Your task to perform on an android device: allow cookies in the chrome app Image 0: 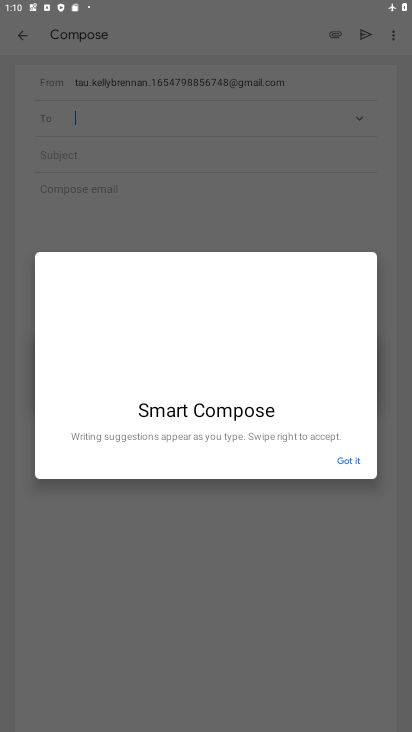
Step 0: press home button
Your task to perform on an android device: allow cookies in the chrome app Image 1: 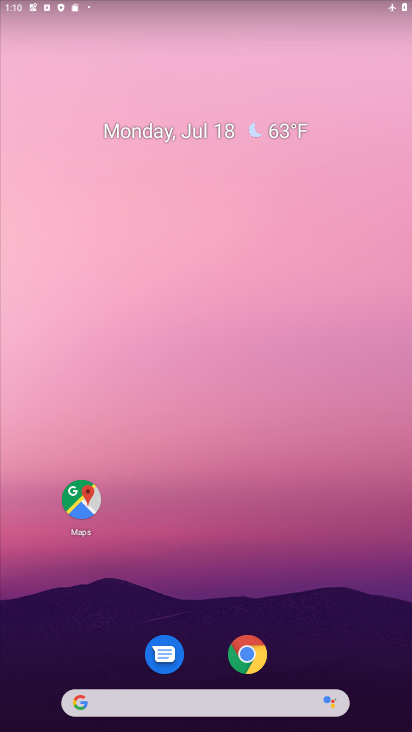
Step 1: click (262, 665)
Your task to perform on an android device: allow cookies in the chrome app Image 2: 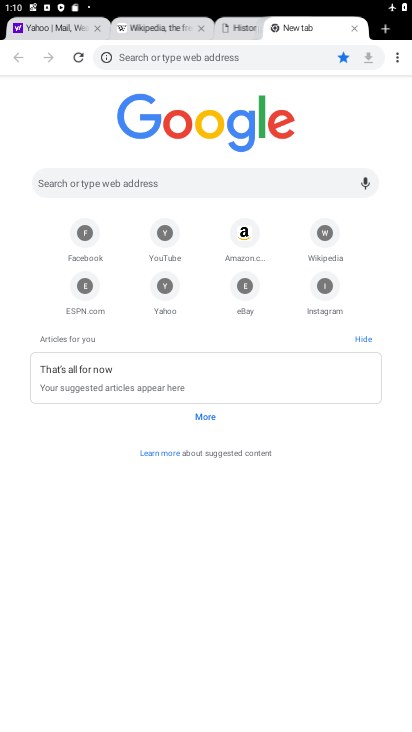
Step 2: click (399, 62)
Your task to perform on an android device: allow cookies in the chrome app Image 3: 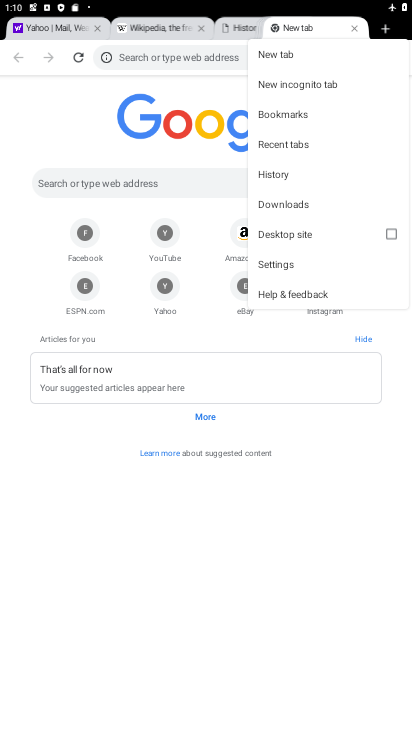
Step 3: click (310, 266)
Your task to perform on an android device: allow cookies in the chrome app Image 4: 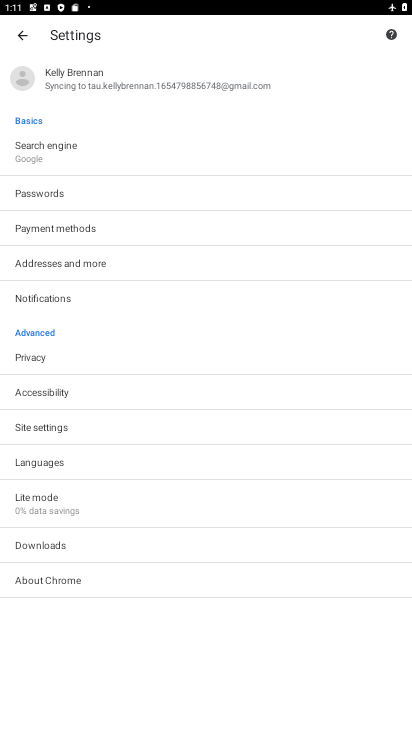
Step 4: click (90, 419)
Your task to perform on an android device: allow cookies in the chrome app Image 5: 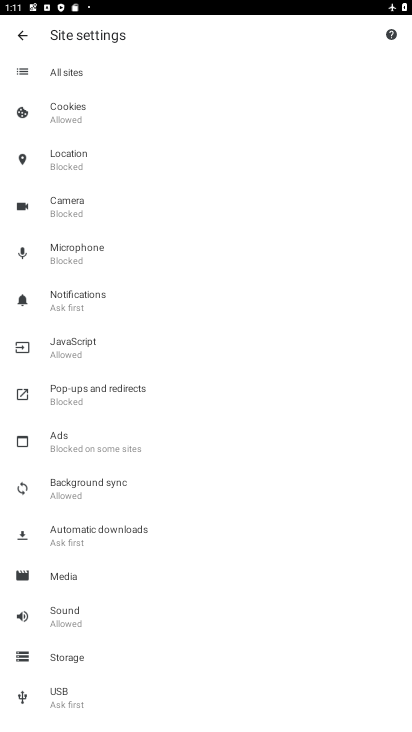
Step 5: click (134, 121)
Your task to perform on an android device: allow cookies in the chrome app Image 6: 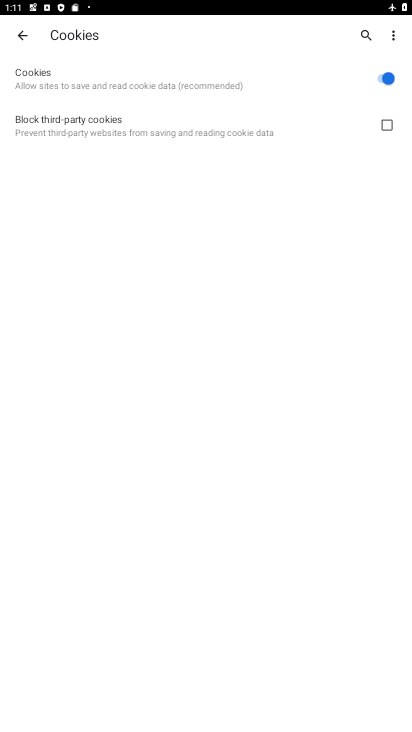
Step 6: task complete